Your task to perform on an android device: refresh tabs in the chrome app Image 0: 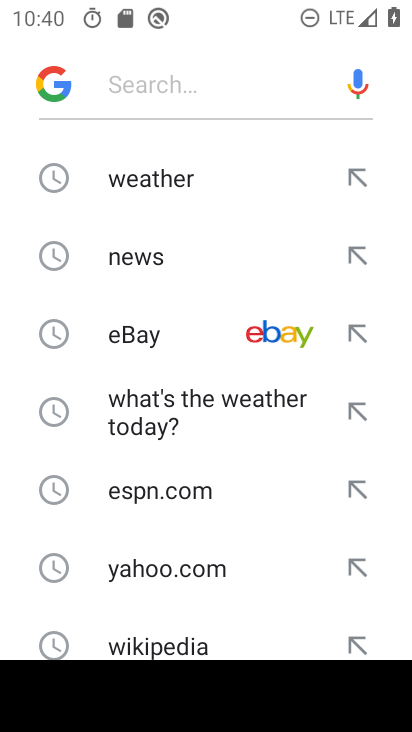
Step 0: press home button
Your task to perform on an android device: refresh tabs in the chrome app Image 1: 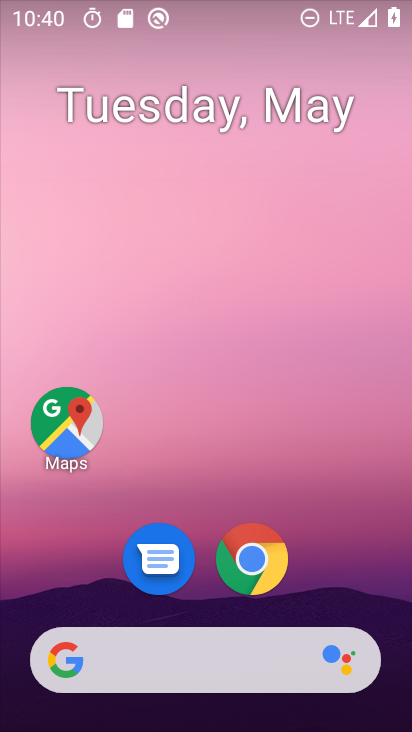
Step 1: drag from (388, 622) to (282, 3)
Your task to perform on an android device: refresh tabs in the chrome app Image 2: 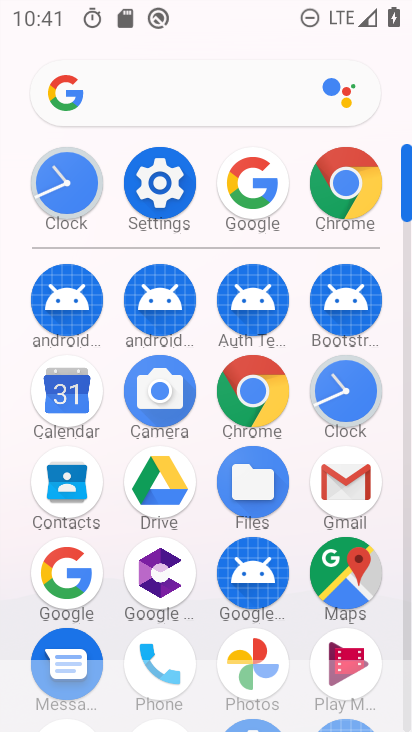
Step 2: click (258, 403)
Your task to perform on an android device: refresh tabs in the chrome app Image 3: 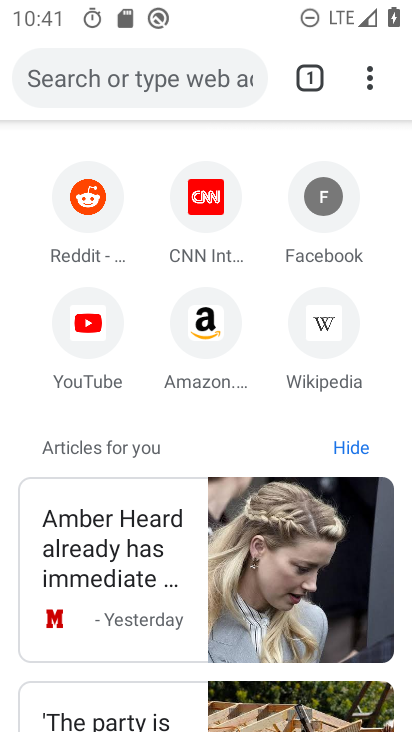
Step 3: click (373, 73)
Your task to perform on an android device: refresh tabs in the chrome app Image 4: 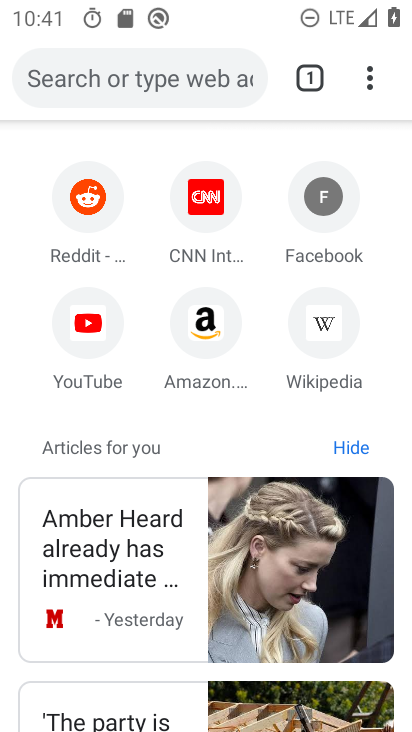
Step 4: click (371, 73)
Your task to perform on an android device: refresh tabs in the chrome app Image 5: 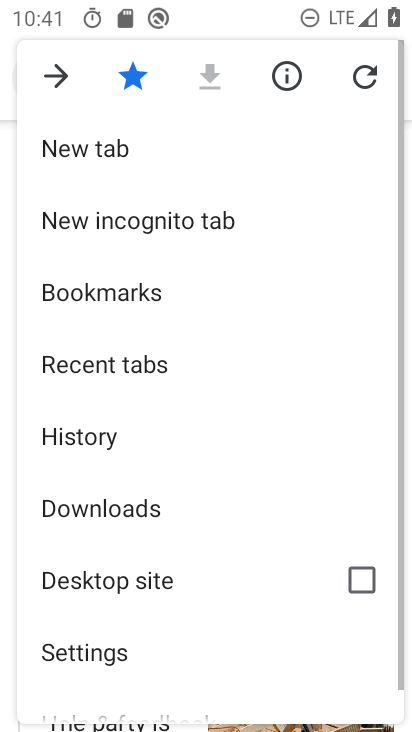
Step 5: click (363, 78)
Your task to perform on an android device: refresh tabs in the chrome app Image 6: 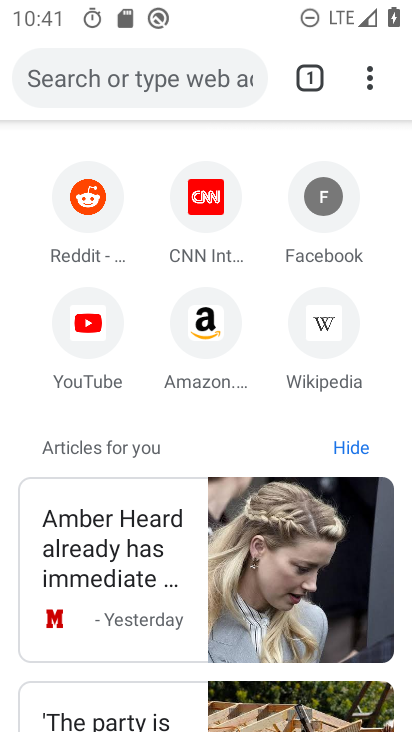
Step 6: task complete